Your task to perform on an android device: search for starred emails in the gmail app Image 0: 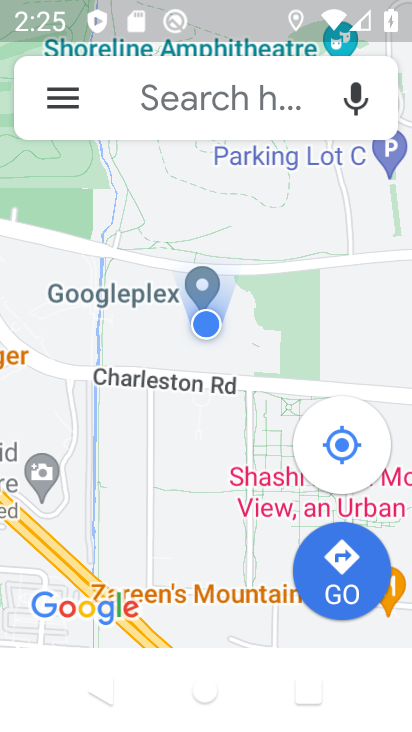
Step 0: press home button
Your task to perform on an android device: search for starred emails in the gmail app Image 1: 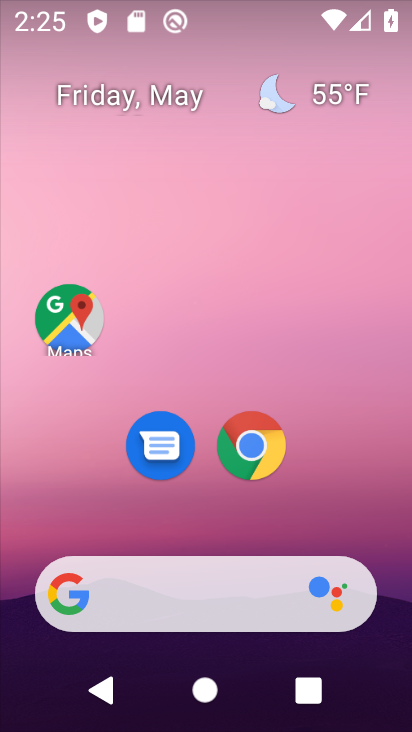
Step 1: drag from (343, 379) to (341, 129)
Your task to perform on an android device: search for starred emails in the gmail app Image 2: 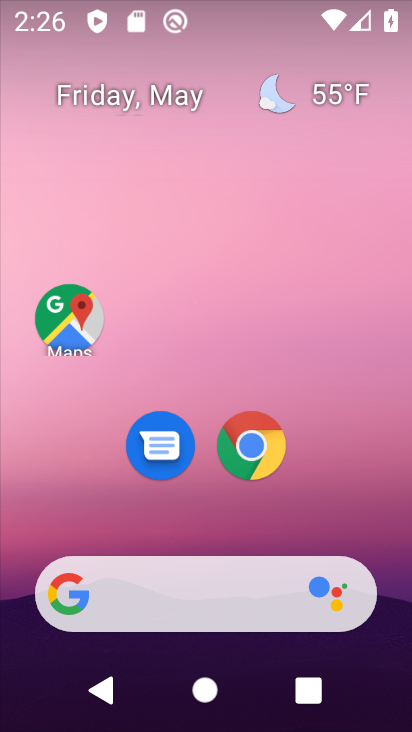
Step 2: drag from (392, 496) to (336, 118)
Your task to perform on an android device: search for starred emails in the gmail app Image 3: 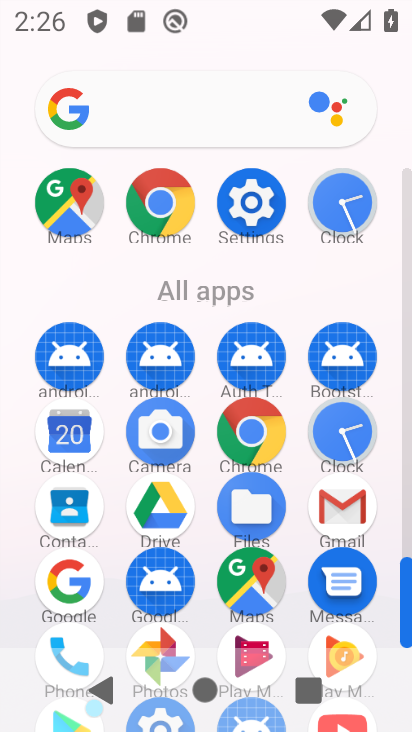
Step 3: click (349, 522)
Your task to perform on an android device: search for starred emails in the gmail app Image 4: 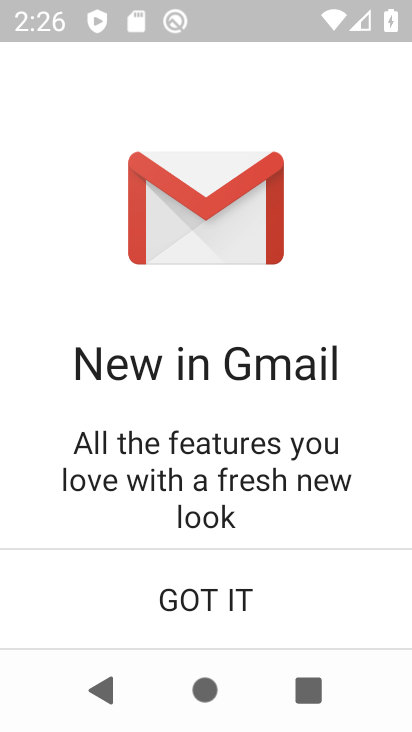
Step 4: click (228, 595)
Your task to perform on an android device: search for starred emails in the gmail app Image 5: 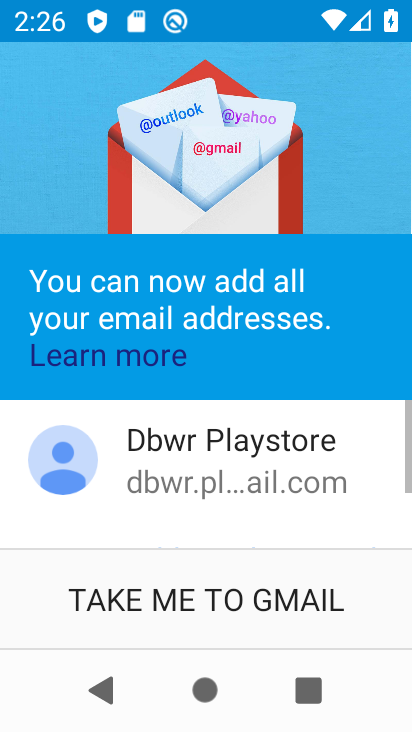
Step 5: click (239, 587)
Your task to perform on an android device: search for starred emails in the gmail app Image 6: 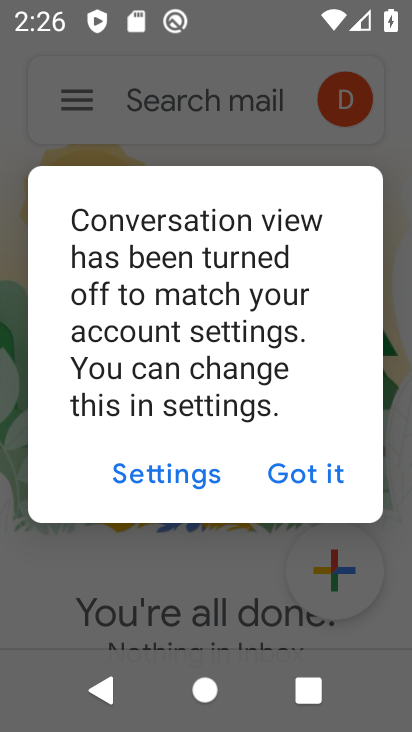
Step 6: click (313, 478)
Your task to perform on an android device: search for starred emails in the gmail app Image 7: 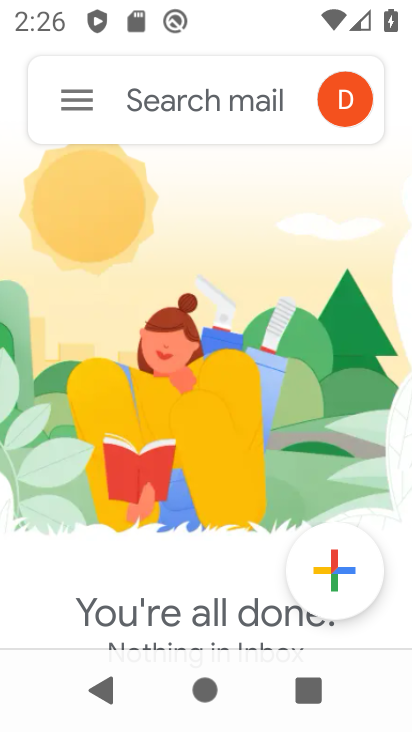
Step 7: click (78, 89)
Your task to perform on an android device: search for starred emails in the gmail app Image 8: 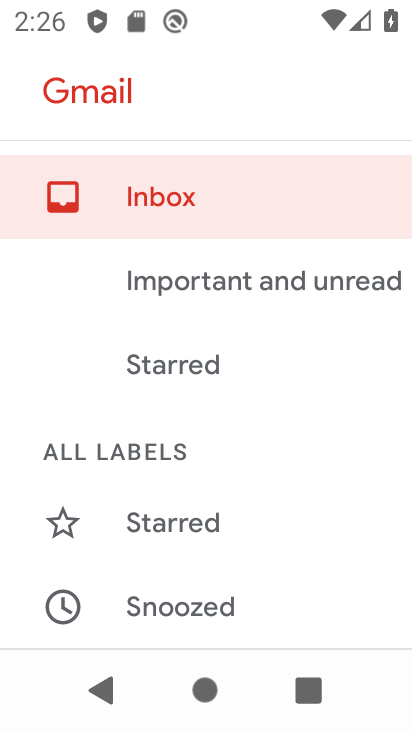
Step 8: drag from (286, 569) to (262, 212)
Your task to perform on an android device: search for starred emails in the gmail app Image 9: 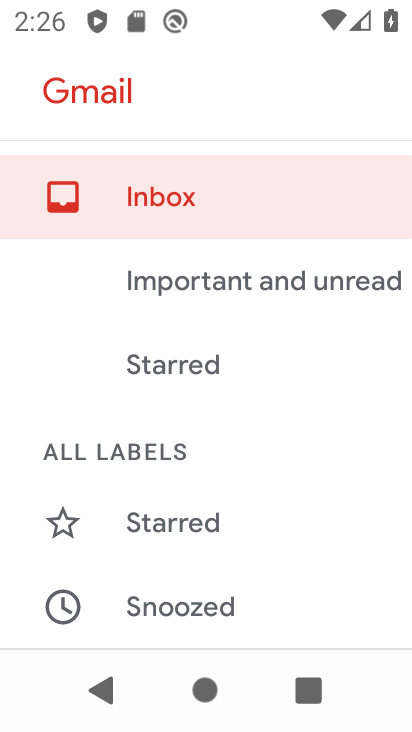
Step 9: click (197, 512)
Your task to perform on an android device: search for starred emails in the gmail app Image 10: 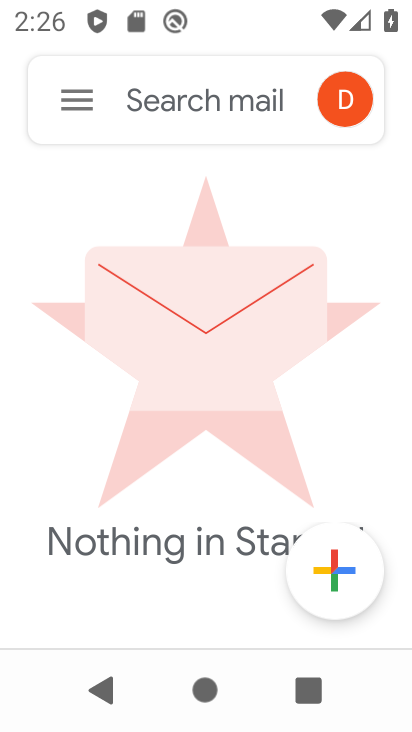
Step 10: task complete